Your task to perform on an android device: toggle airplane mode Image 0: 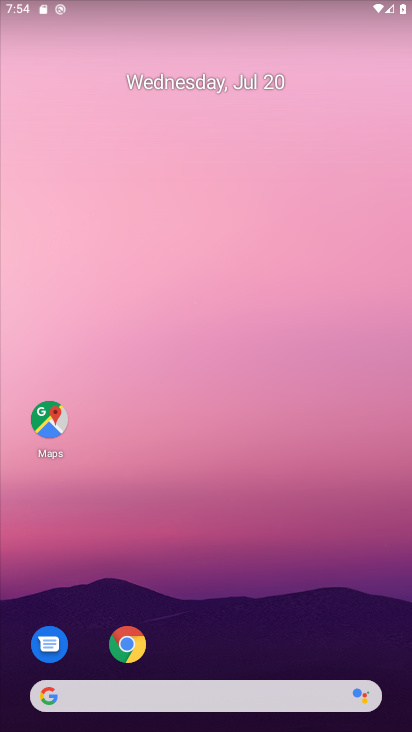
Step 0: drag from (199, 601) to (199, 280)
Your task to perform on an android device: toggle airplane mode Image 1: 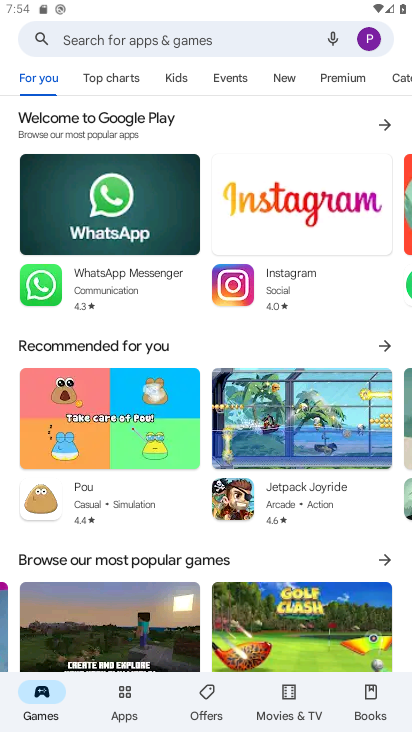
Step 1: press home button
Your task to perform on an android device: toggle airplane mode Image 2: 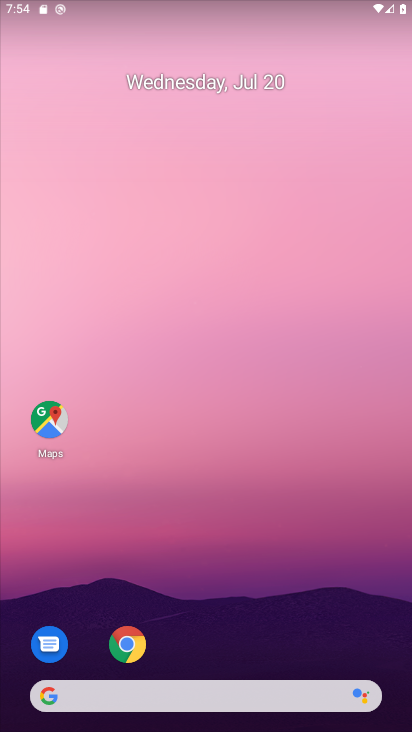
Step 2: drag from (177, 679) to (202, 260)
Your task to perform on an android device: toggle airplane mode Image 3: 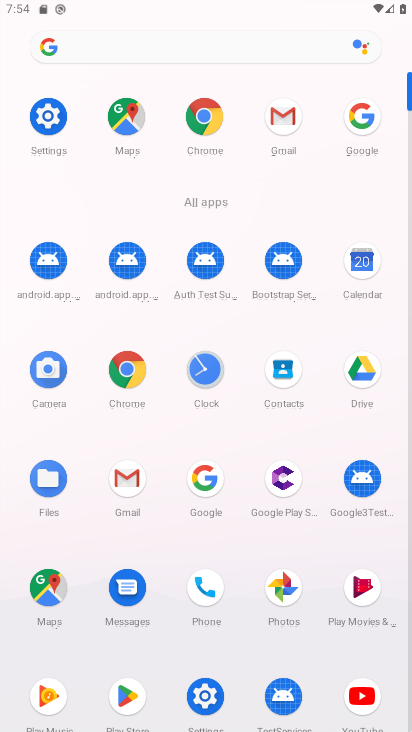
Step 3: click (39, 128)
Your task to perform on an android device: toggle airplane mode Image 4: 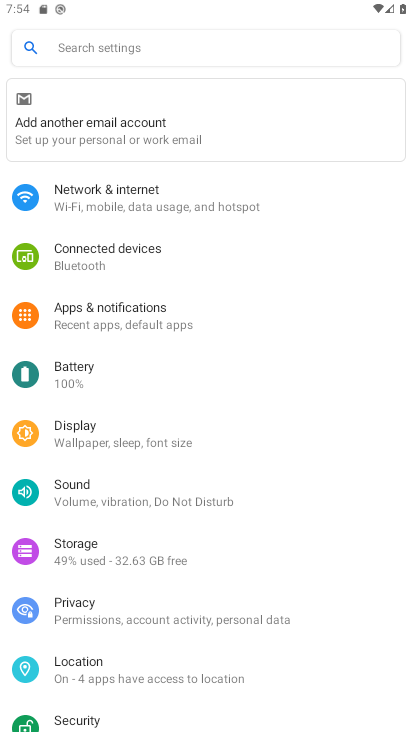
Step 4: click (92, 210)
Your task to perform on an android device: toggle airplane mode Image 5: 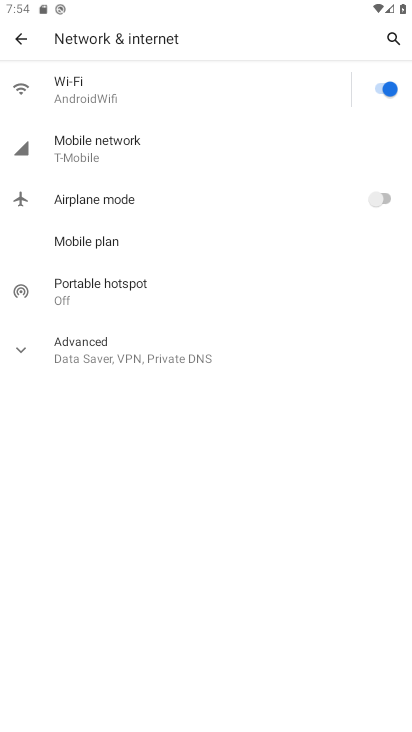
Step 5: click (388, 194)
Your task to perform on an android device: toggle airplane mode Image 6: 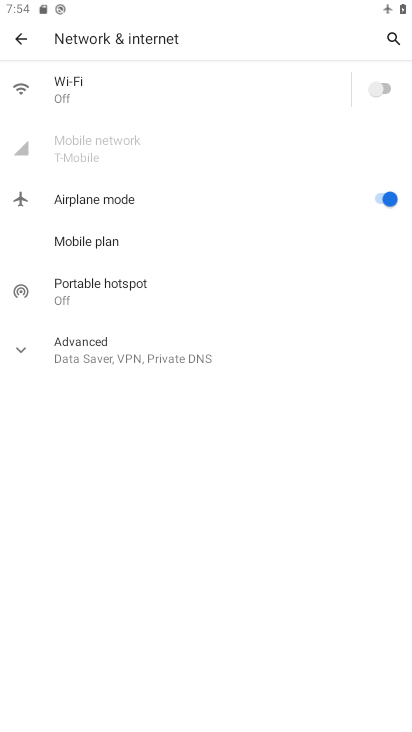
Step 6: task complete